Your task to perform on an android device: open wifi settings Image 0: 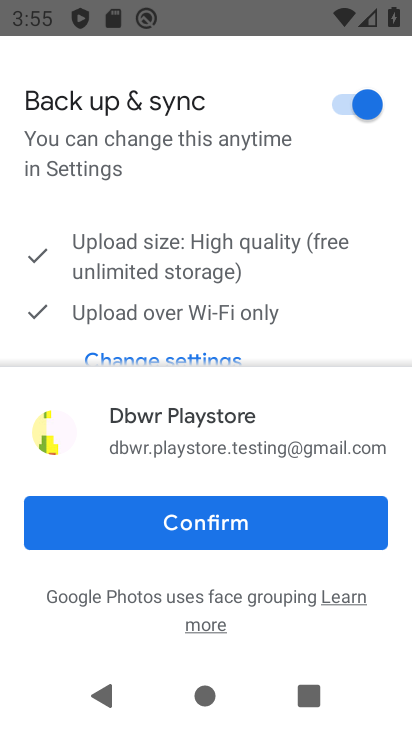
Step 0: press home button
Your task to perform on an android device: open wifi settings Image 1: 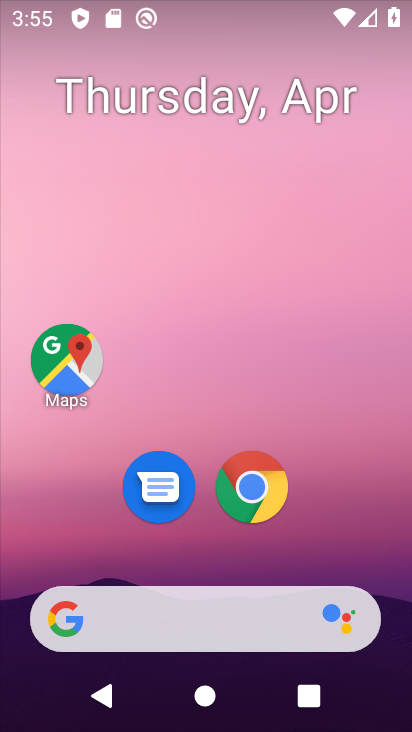
Step 1: drag from (209, 569) to (213, 172)
Your task to perform on an android device: open wifi settings Image 2: 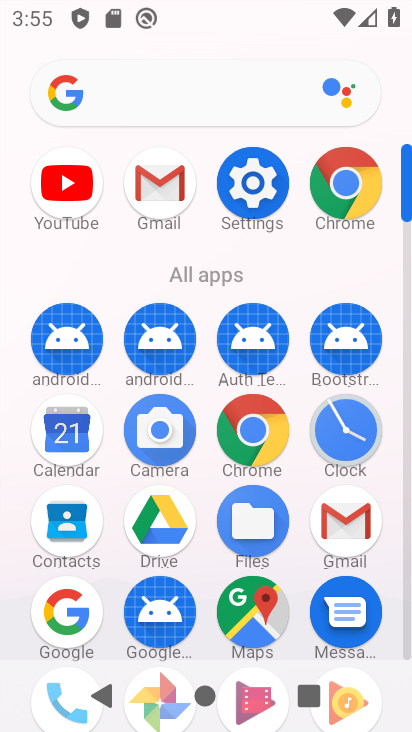
Step 2: click (226, 180)
Your task to perform on an android device: open wifi settings Image 3: 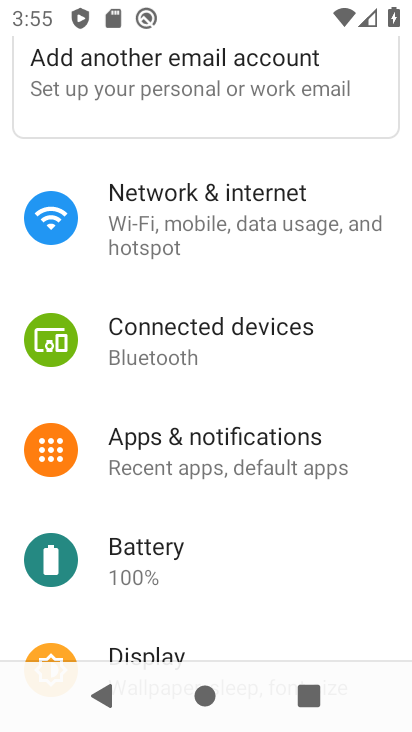
Step 3: click (223, 204)
Your task to perform on an android device: open wifi settings Image 4: 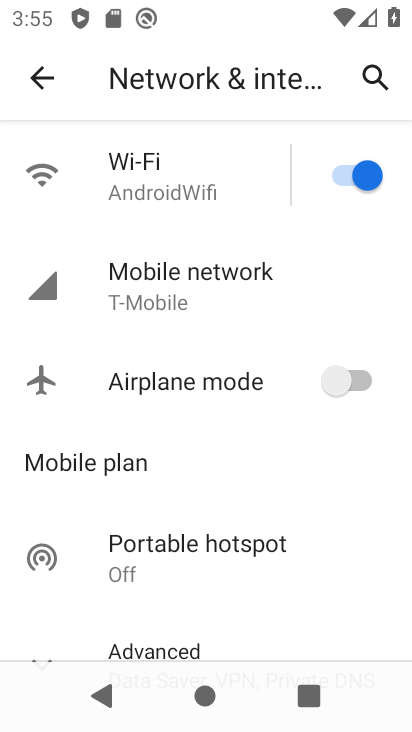
Step 4: click (168, 206)
Your task to perform on an android device: open wifi settings Image 5: 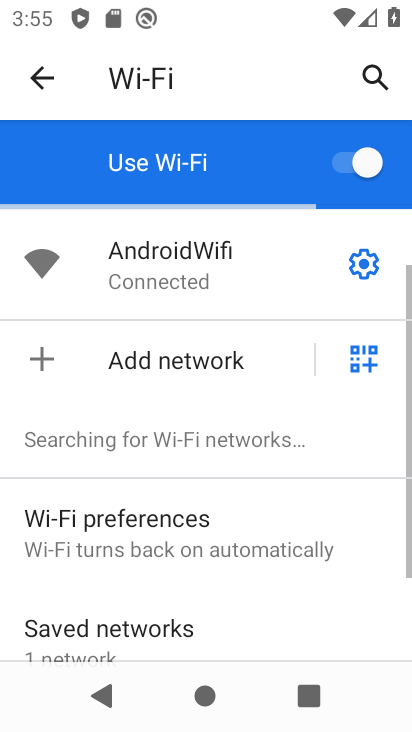
Step 5: task complete